Your task to perform on an android device: Go to settings Image 0: 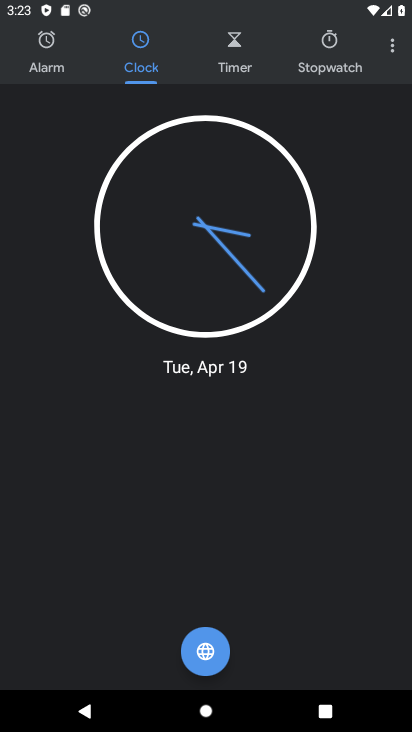
Step 0: press home button
Your task to perform on an android device: Go to settings Image 1: 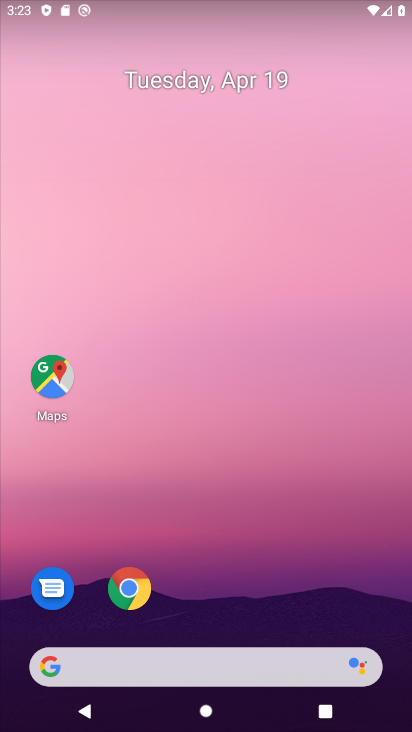
Step 1: drag from (229, 611) to (228, 173)
Your task to perform on an android device: Go to settings Image 2: 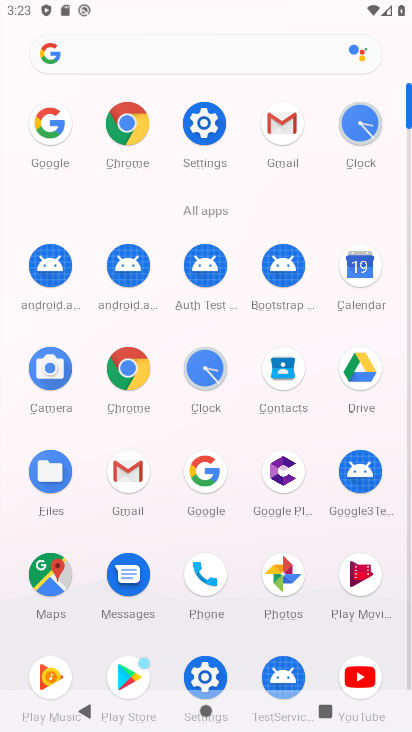
Step 2: click (214, 117)
Your task to perform on an android device: Go to settings Image 3: 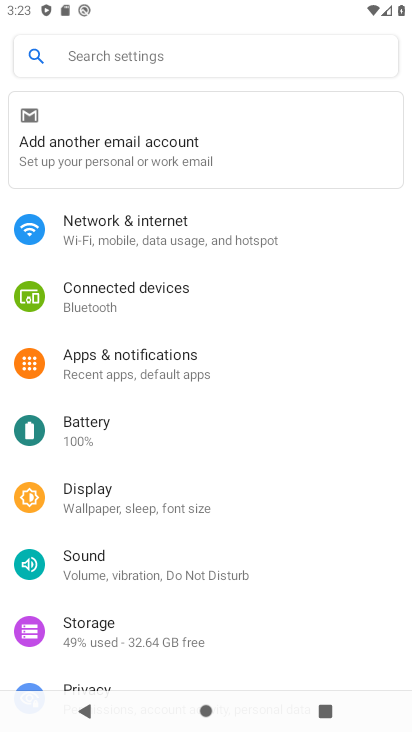
Step 3: task complete